Your task to perform on an android device: Check my email inbox Image 0: 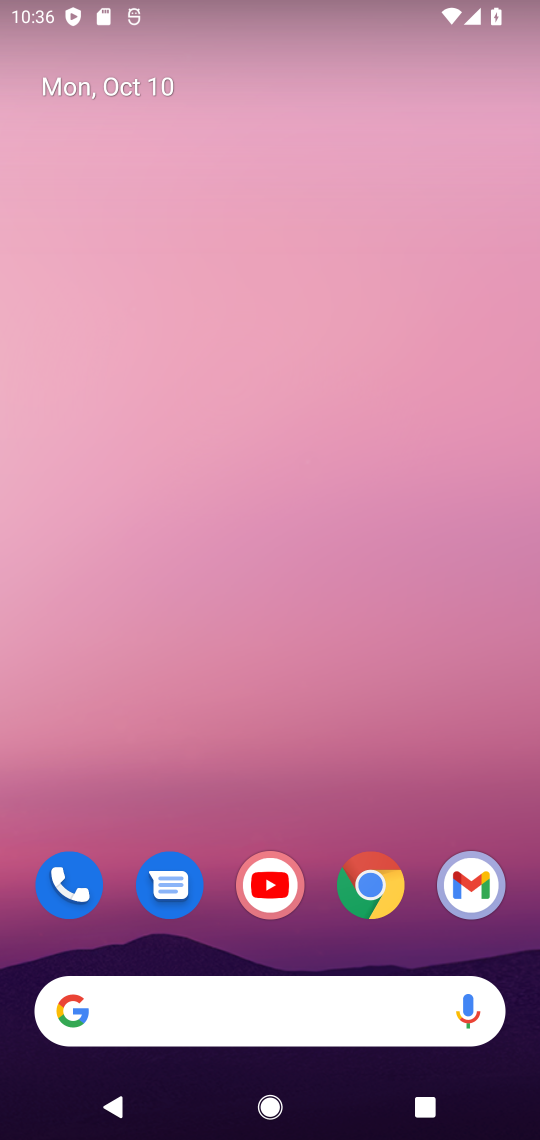
Step 0: drag from (317, 1072) to (317, 254)
Your task to perform on an android device: Check my email inbox Image 1: 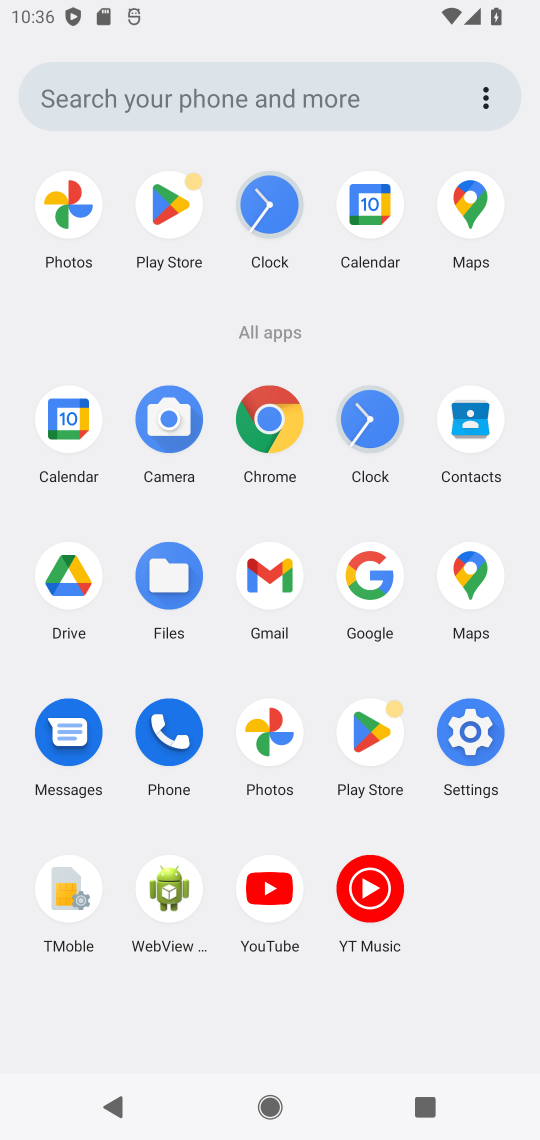
Step 1: click (273, 607)
Your task to perform on an android device: Check my email inbox Image 2: 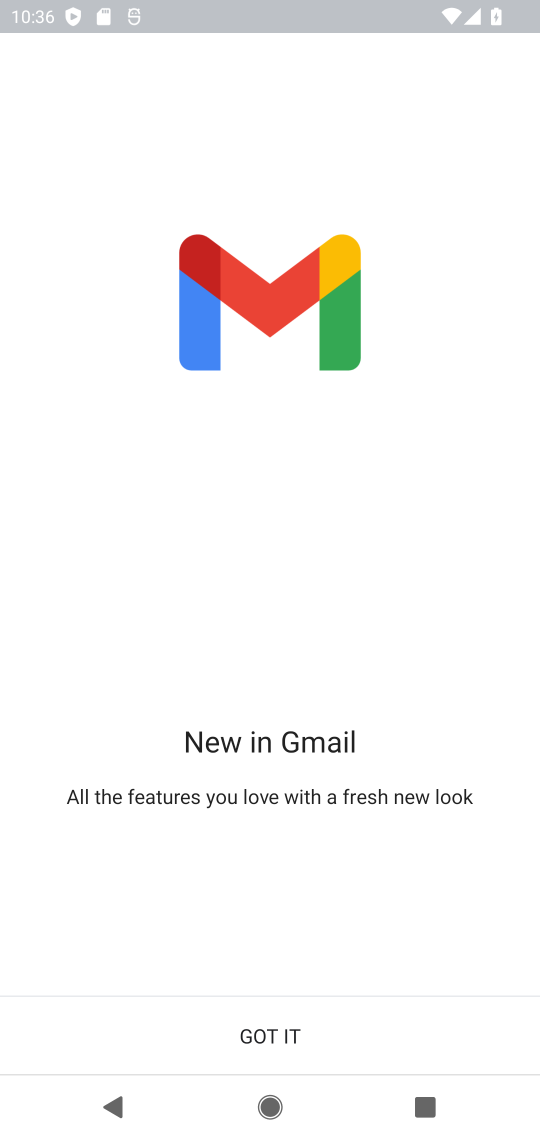
Step 2: click (284, 1022)
Your task to perform on an android device: Check my email inbox Image 3: 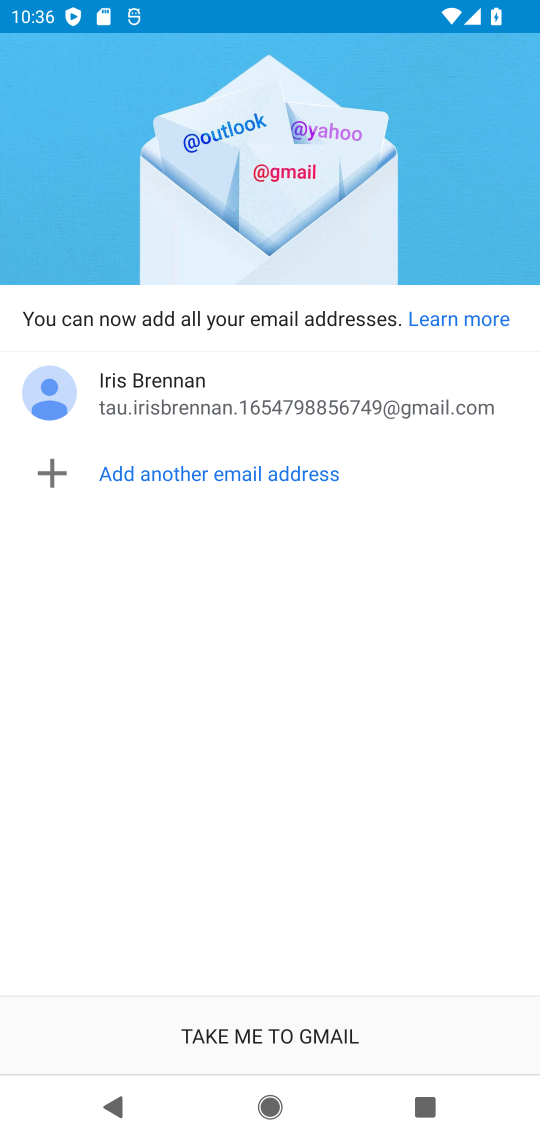
Step 3: click (284, 1022)
Your task to perform on an android device: Check my email inbox Image 4: 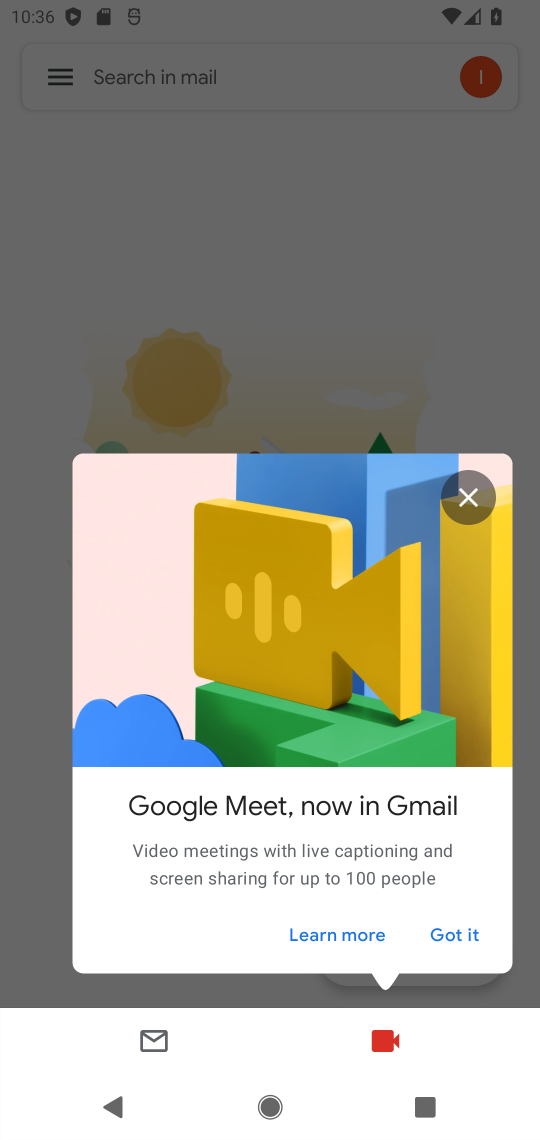
Step 4: click (426, 920)
Your task to perform on an android device: Check my email inbox Image 5: 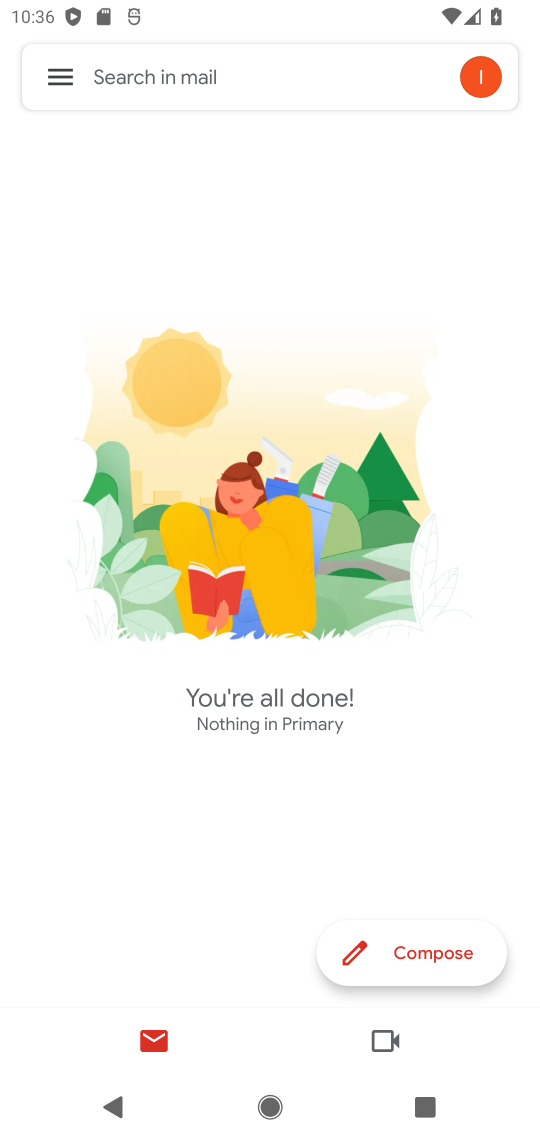
Step 5: click (66, 78)
Your task to perform on an android device: Check my email inbox Image 6: 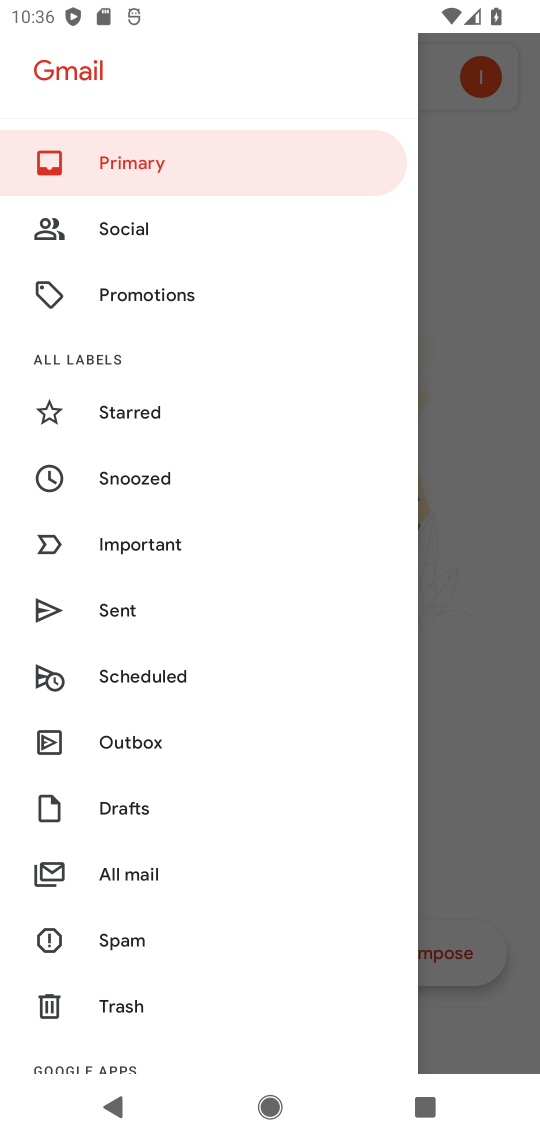
Step 6: drag from (194, 721) to (193, 563)
Your task to perform on an android device: Check my email inbox Image 7: 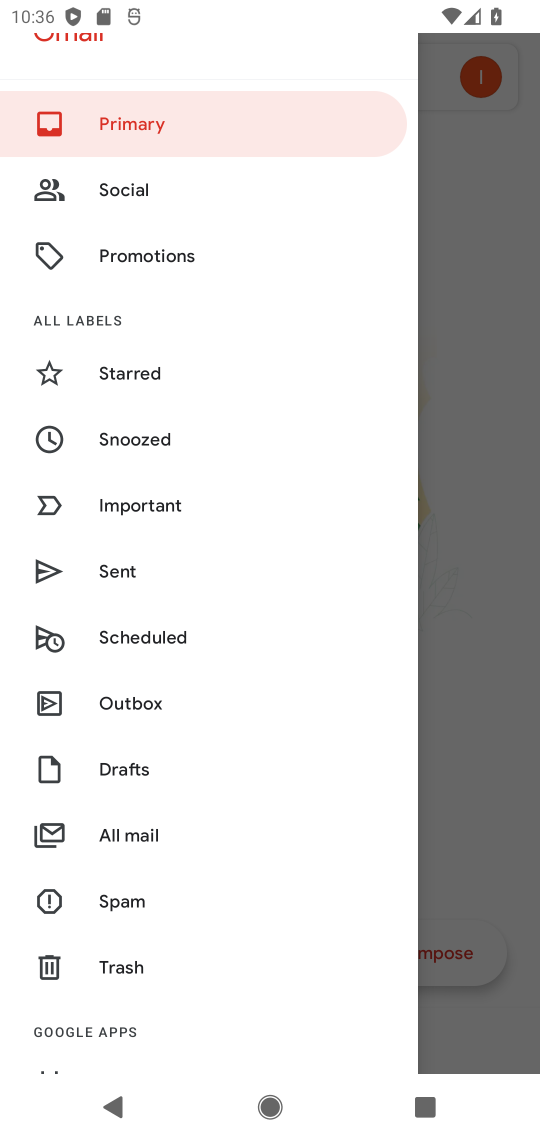
Step 7: drag from (175, 672) to (196, 566)
Your task to perform on an android device: Check my email inbox Image 8: 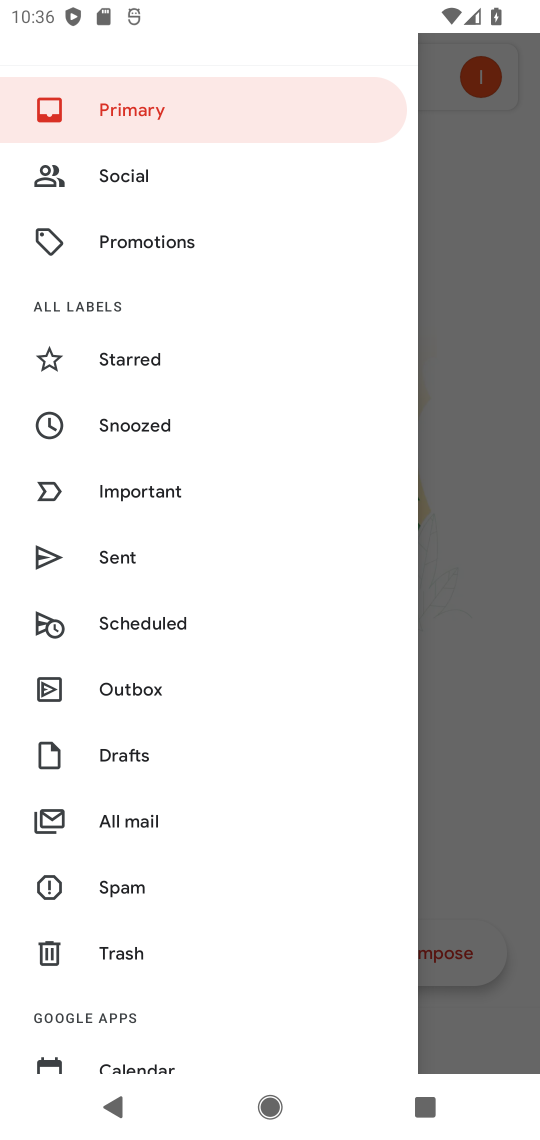
Step 8: click (191, 850)
Your task to perform on an android device: Check my email inbox Image 9: 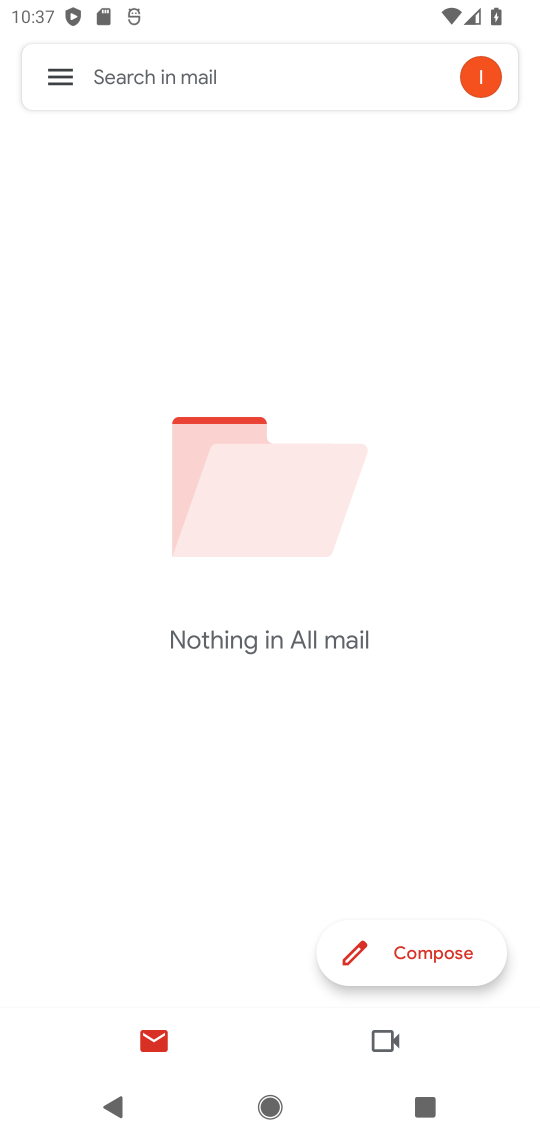
Step 9: task complete